Your task to perform on an android device: turn on the 24-hour format for clock Image 0: 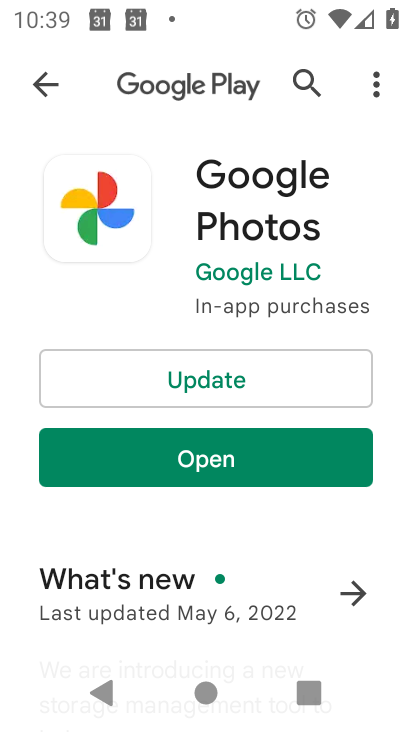
Step 0: press home button
Your task to perform on an android device: turn on the 24-hour format for clock Image 1: 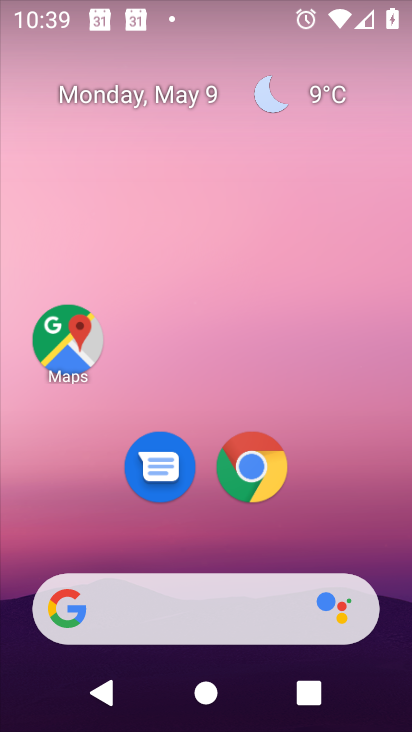
Step 1: drag from (382, 546) to (352, 5)
Your task to perform on an android device: turn on the 24-hour format for clock Image 2: 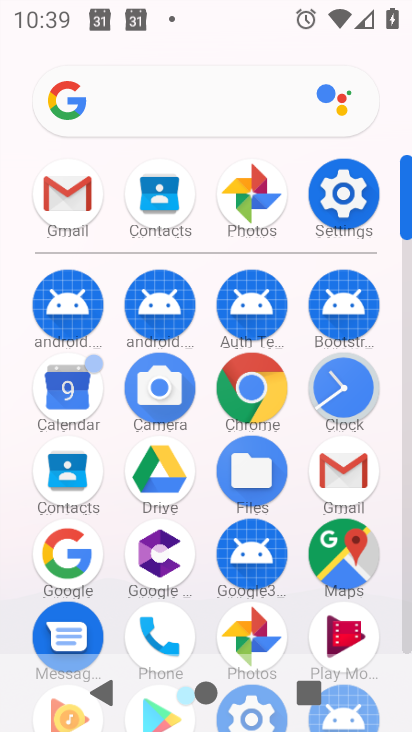
Step 2: click (325, 387)
Your task to perform on an android device: turn on the 24-hour format for clock Image 3: 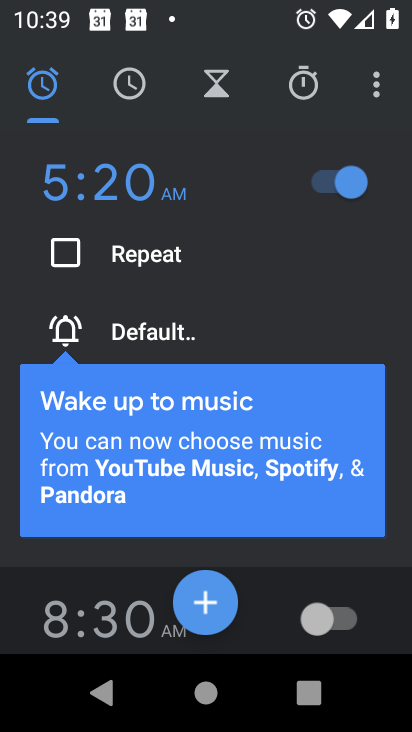
Step 3: click (376, 98)
Your task to perform on an android device: turn on the 24-hour format for clock Image 4: 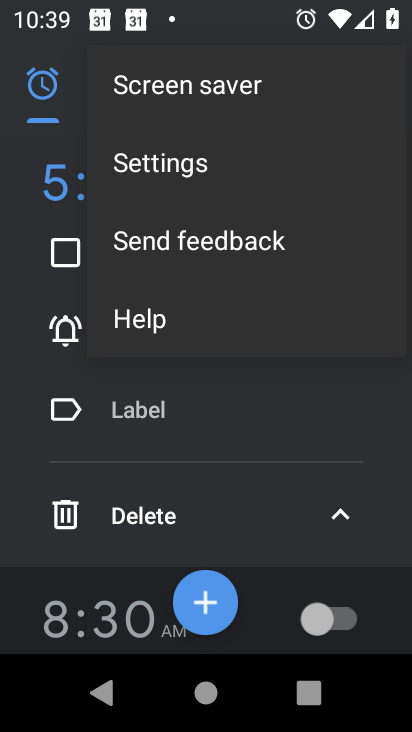
Step 4: click (146, 174)
Your task to perform on an android device: turn on the 24-hour format for clock Image 5: 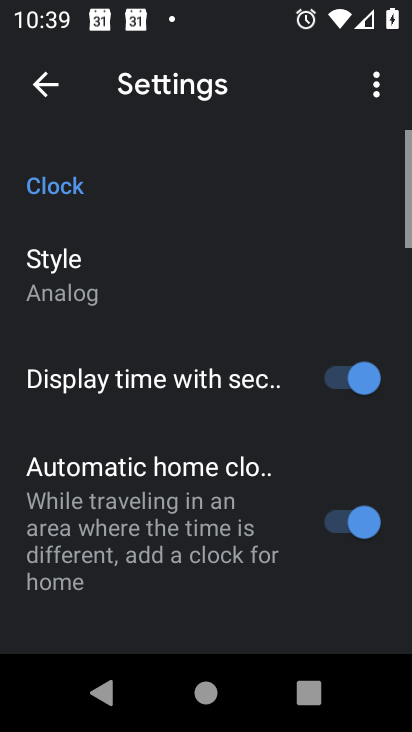
Step 5: drag from (179, 491) to (171, 13)
Your task to perform on an android device: turn on the 24-hour format for clock Image 6: 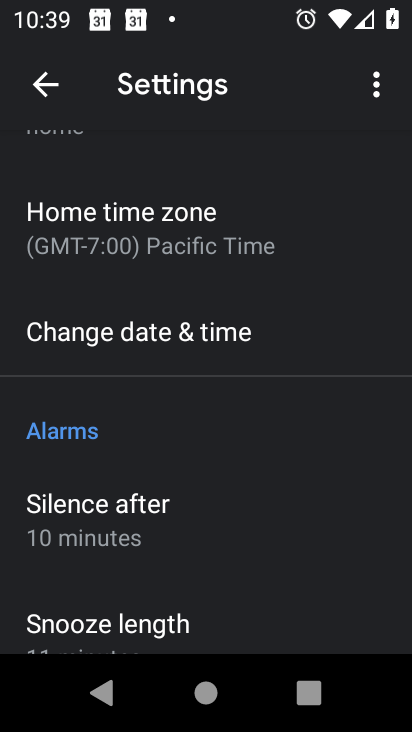
Step 6: click (154, 352)
Your task to perform on an android device: turn on the 24-hour format for clock Image 7: 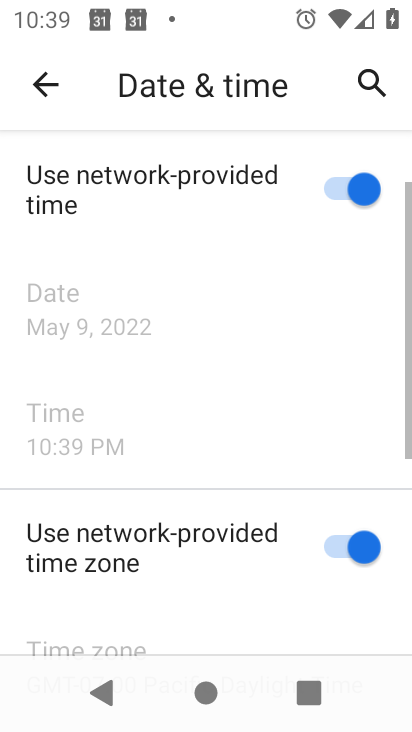
Step 7: drag from (191, 565) to (163, 85)
Your task to perform on an android device: turn on the 24-hour format for clock Image 8: 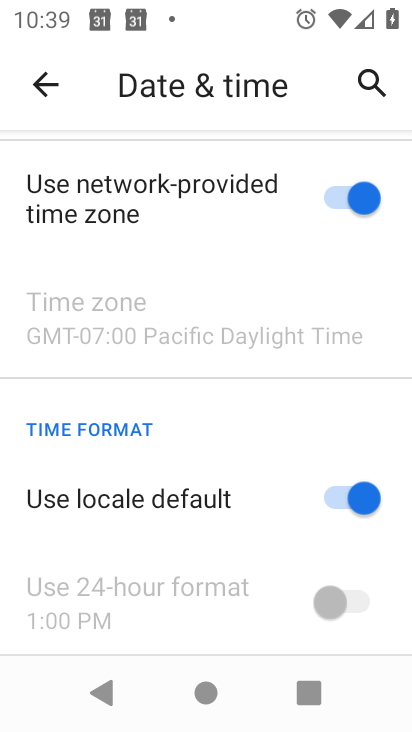
Step 8: drag from (181, 438) to (169, 149)
Your task to perform on an android device: turn on the 24-hour format for clock Image 9: 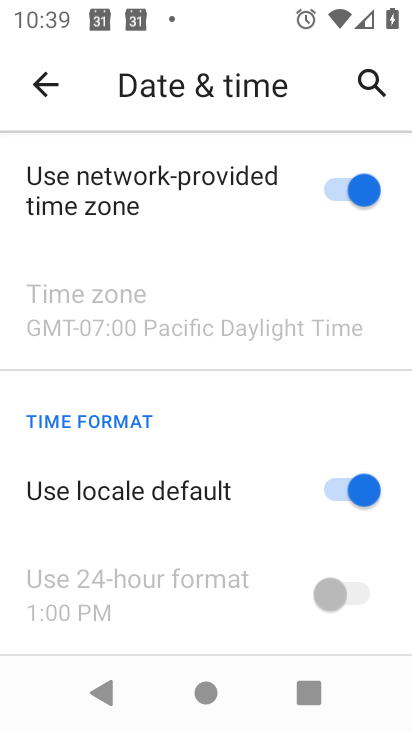
Step 9: click (365, 474)
Your task to perform on an android device: turn on the 24-hour format for clock Image 10: 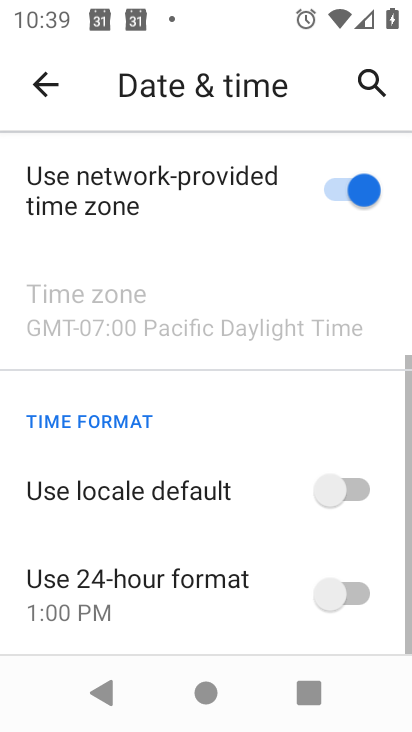
Step 10: click (352, 588)
Your task to perform on an android device: turn on the 24-hour format for clock Image 11: 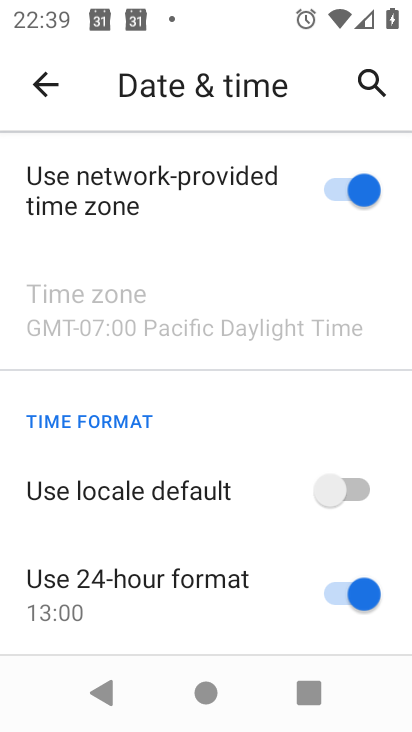
Step 11: task complete